Your task to perform on an android device: remove spam from my inbox in the gmail app Image 0: 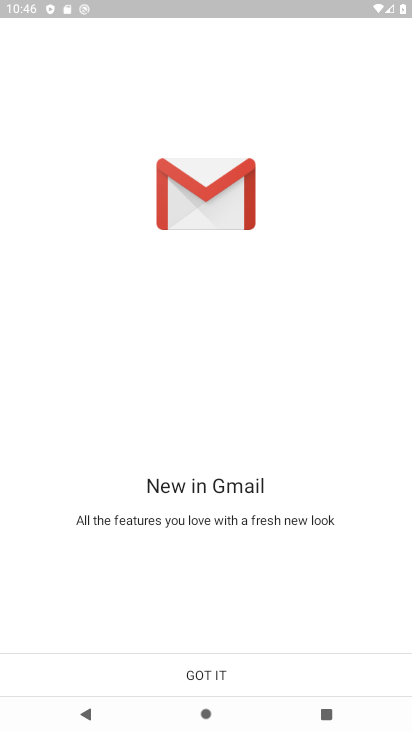
Step 0: click (139, 694)
Your task to perform on an android device: remove spam from my inbox in the gmail app Image 1: 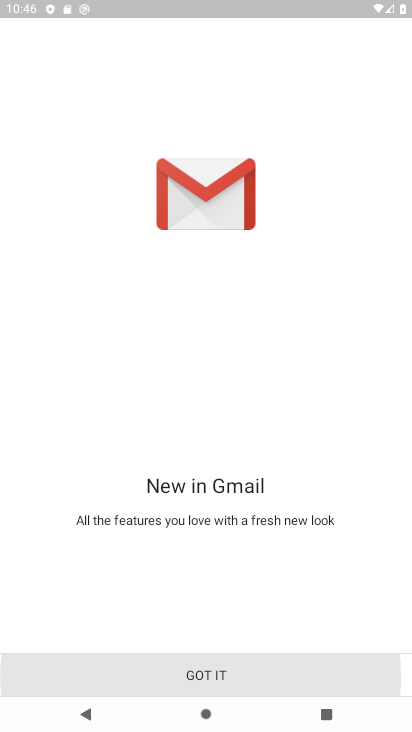
Step 1: click (146, 679)
Your task to perform on an android device: remove spam from my inbox in the gmail app Image 2: 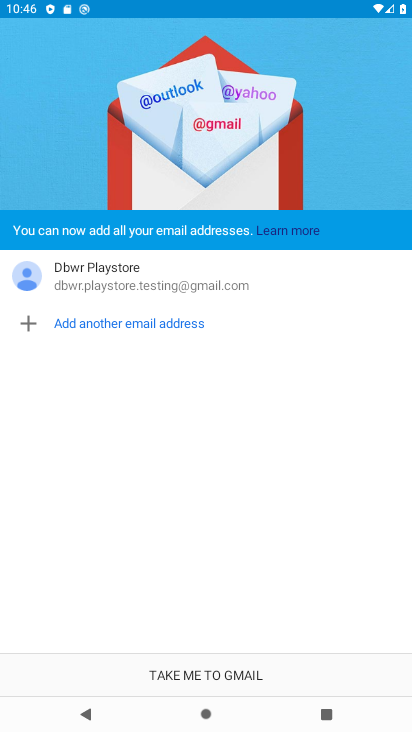
Step 2: click (179, 671)
Your task to perform on an android device: remove spam from my inbox in the gmail app Image 3: 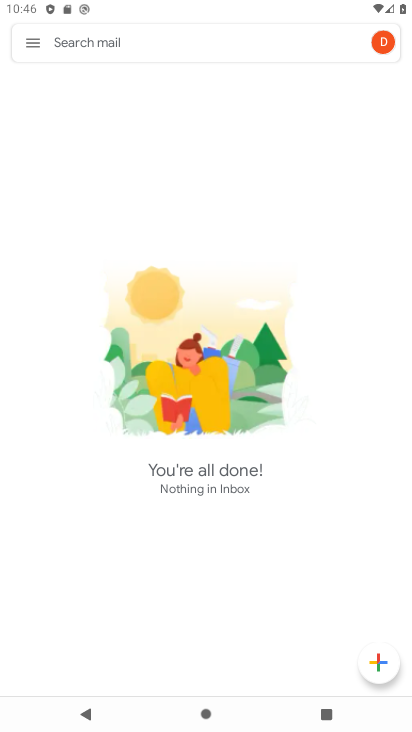
Step 3: click (39, 33)
Your task to perform on an android device: remove spam from my inbox in the gmail app Image 4: 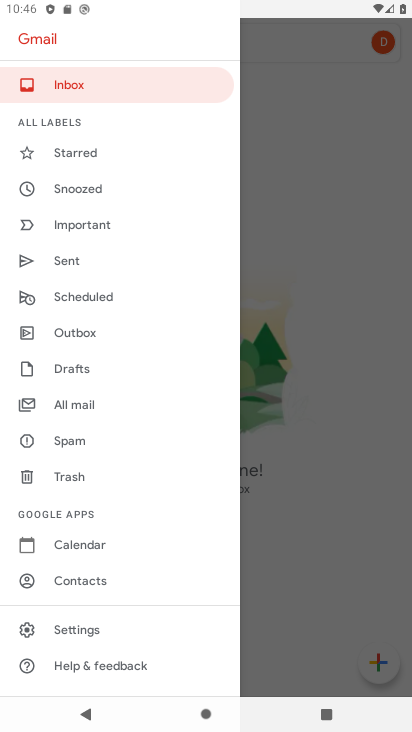
Step 4: click (110, 92)
Your task to perform on an android device: remove spam from my inbox in the gmail app Image 5: 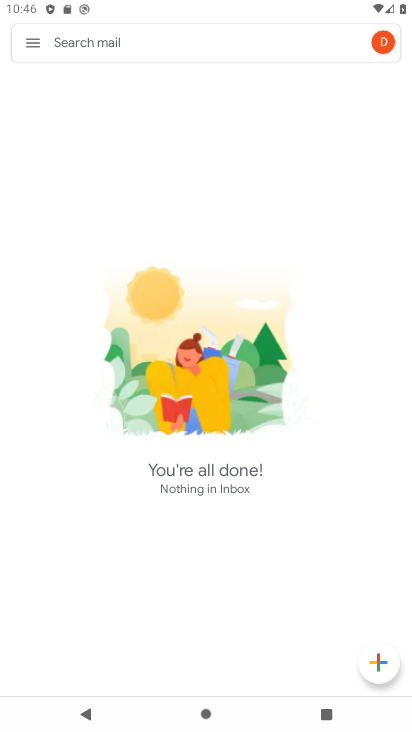
Step 5: task complete